Your task to perform on an android device: Open settings on Google Maps Image 0: 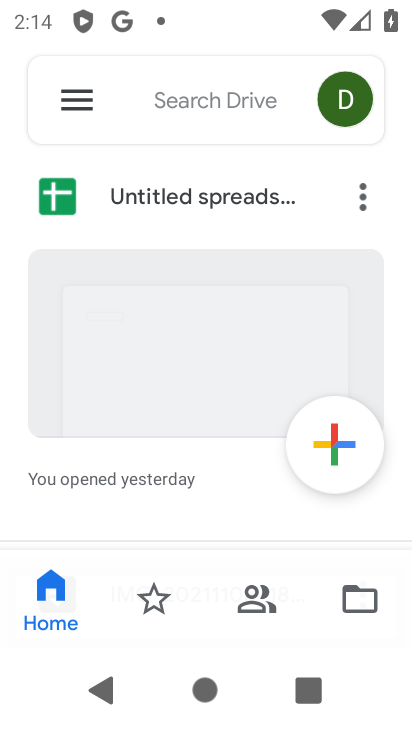
Step 0: press home button
Your task to perform on an android device: Open settings on Google Maps Image 1: 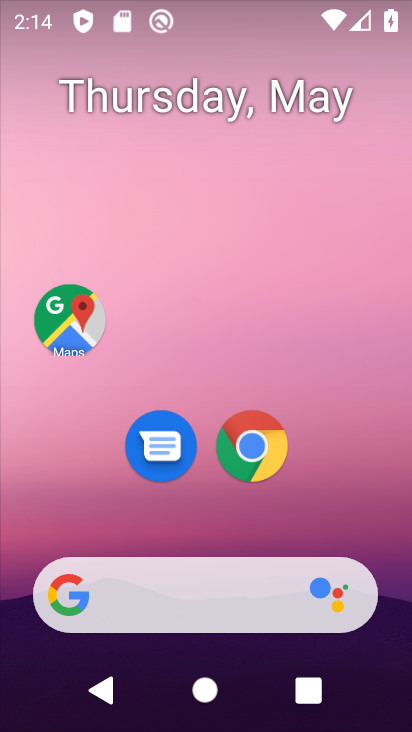
Step 1: drag from (294, 495) to (312, 0)
Your task to perform on an android device: Open settings on Google Maps Image 2: 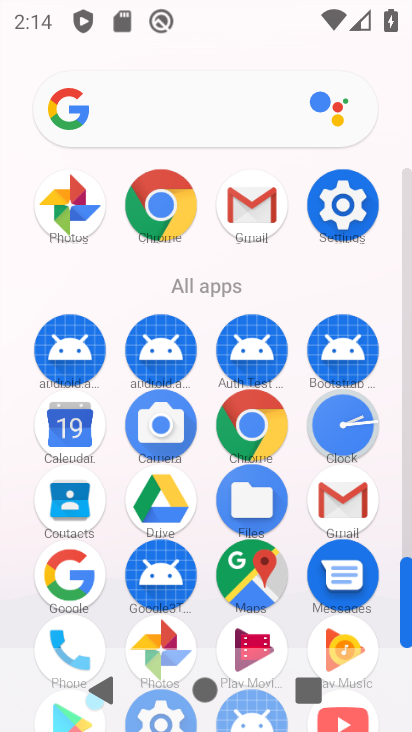
Step 2: click (240, 575)
Your task to perform on an android device: Open settings on Google Maps Image 3: 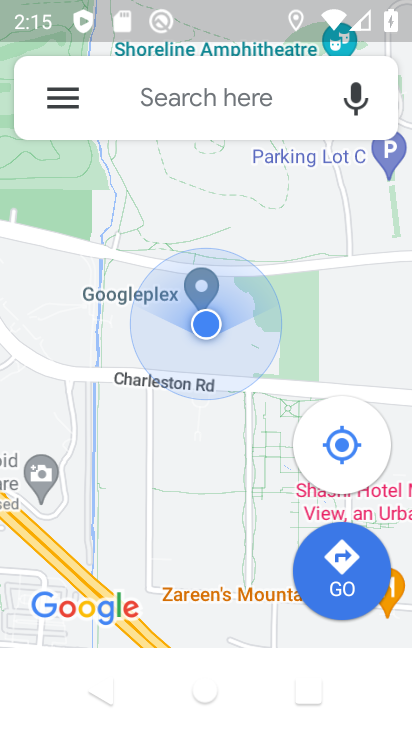
Step 3: click (47, 97)
Your task to perform on an android device: Open settings on Google Maps Image 4: 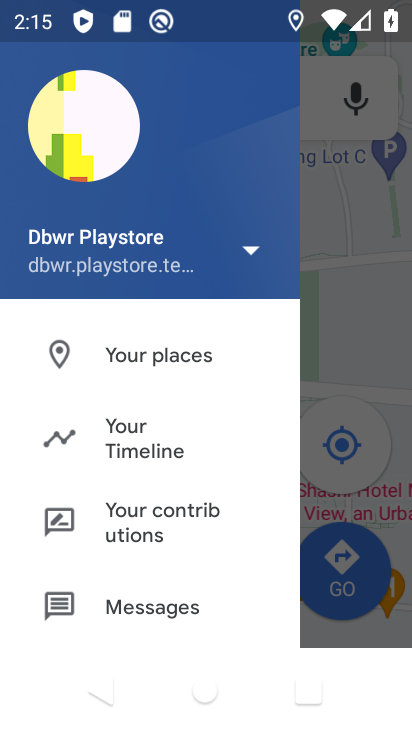
Step 4: drag from (174, 583) to (146, 147)
Your task to perform on an android device: Open settings on Google Maps Image 5: 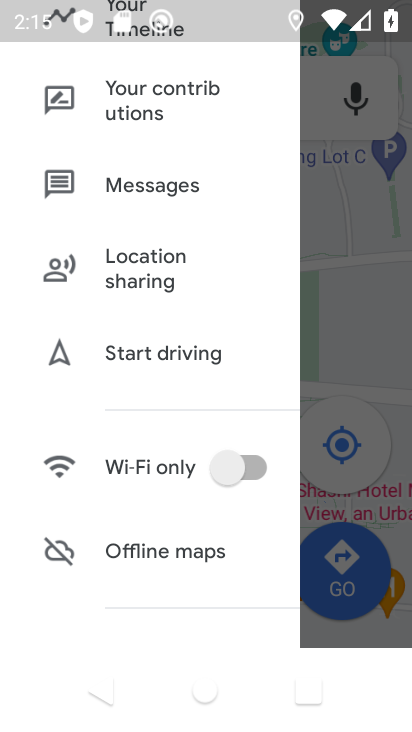
Step 5: drag from (127, 575) to (95, 204)
Your task to perform on an android device: Open settings on Google Maps Image 6: 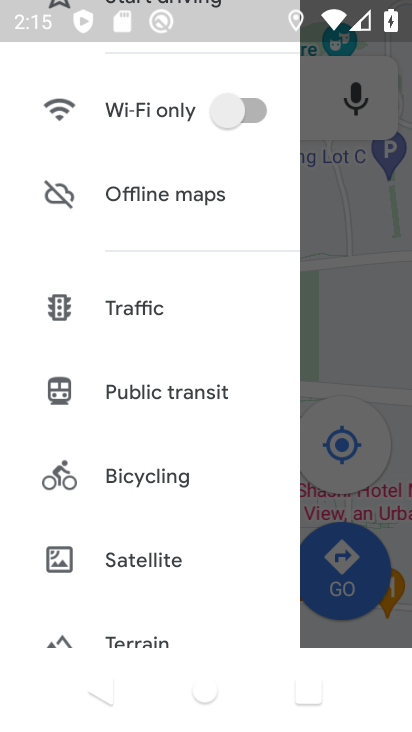
Step 6: drag from (110, 548) to (105, 131)
Your task to perform on an android device: Open settings on Google Maps Image 7: 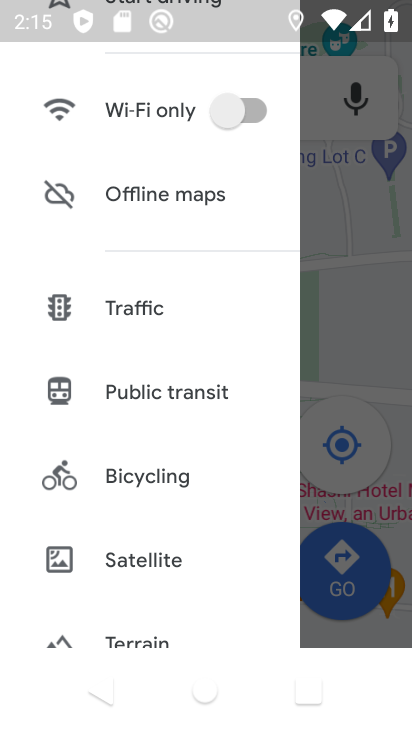
Step 7: drag from (74, 548) to (72, 202)
Your task to perform on an android device: Open settings on Google Maps Image 8: 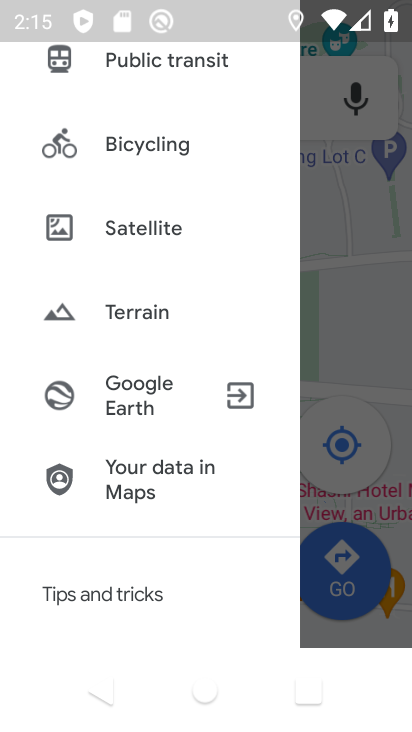
Step 8: drag from (108, 571) to (117, 222)
Your task to perform on an android device: Open settings on Google Maps Image 9: 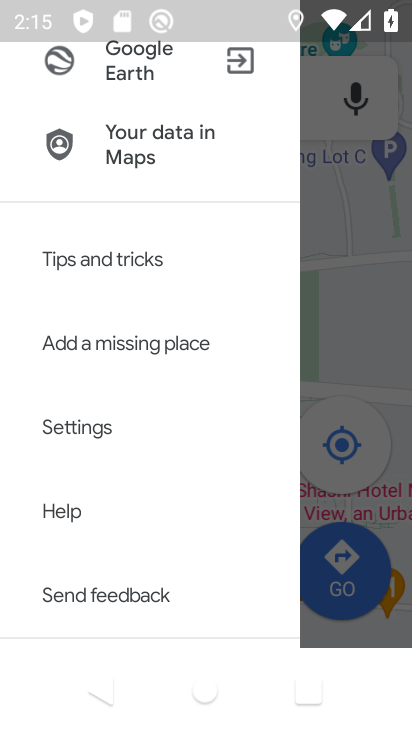
Step 9: click (65, 415)
Your task to perform on an android device: Open settings on Google Maps Image 10: 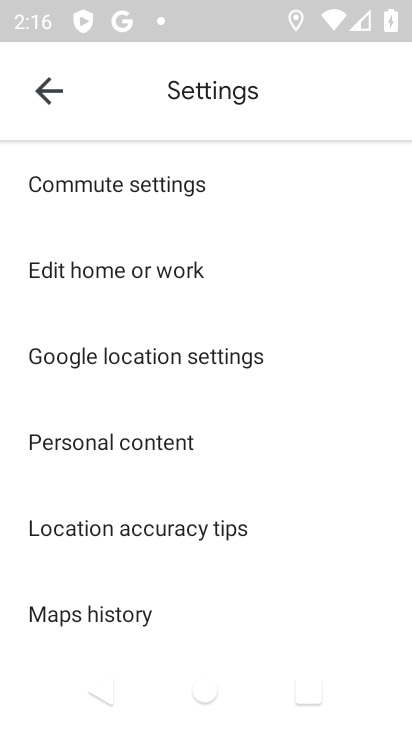
Step 10: task complete